Your task to perform on an android device: find snoozed emails in the gmail app Image 0: 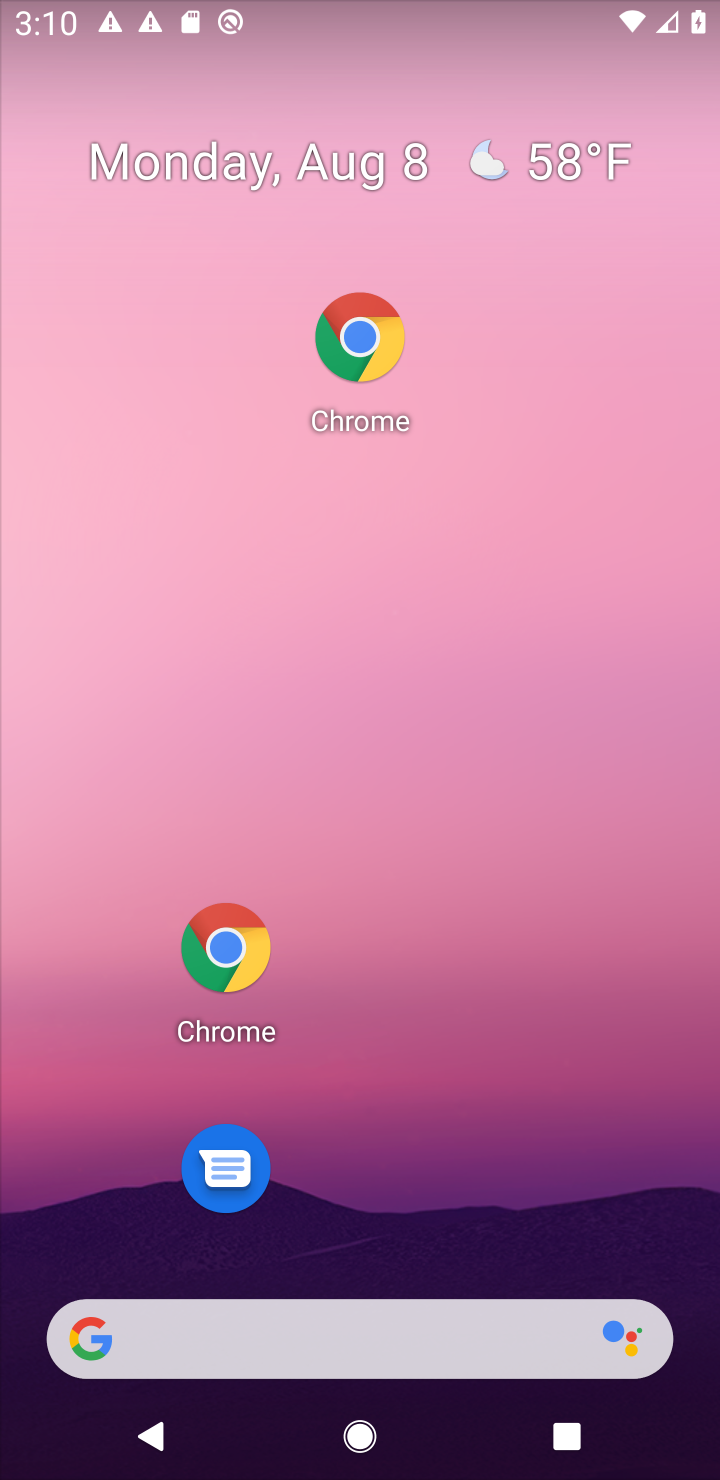
Step 0: drag from (405, 1264) to (486, 9)
Your task to perform on an android device: find snoozed emails in the gmail app Image 1: 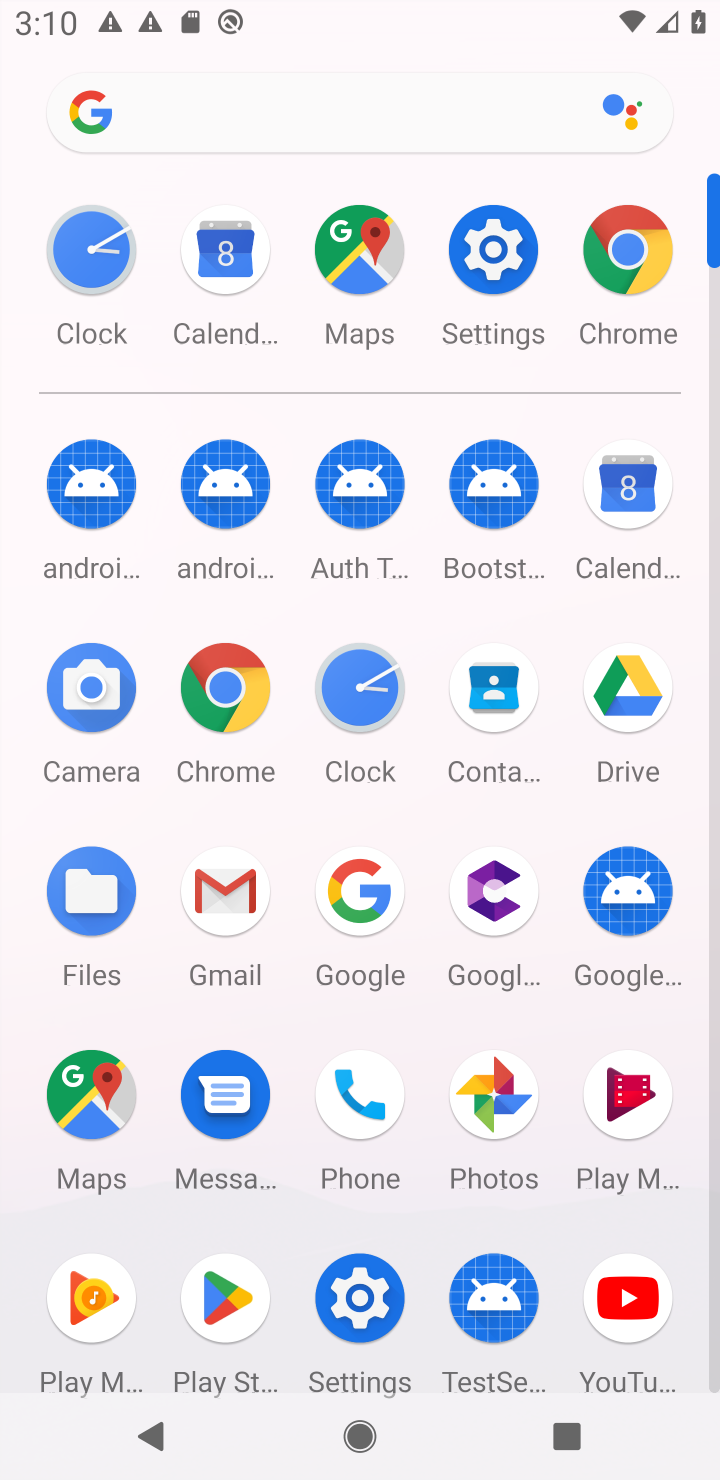
Step 1: click (235, 900)
Your task to perform on an android device: find snoozed emails in the gmail app Image 2: 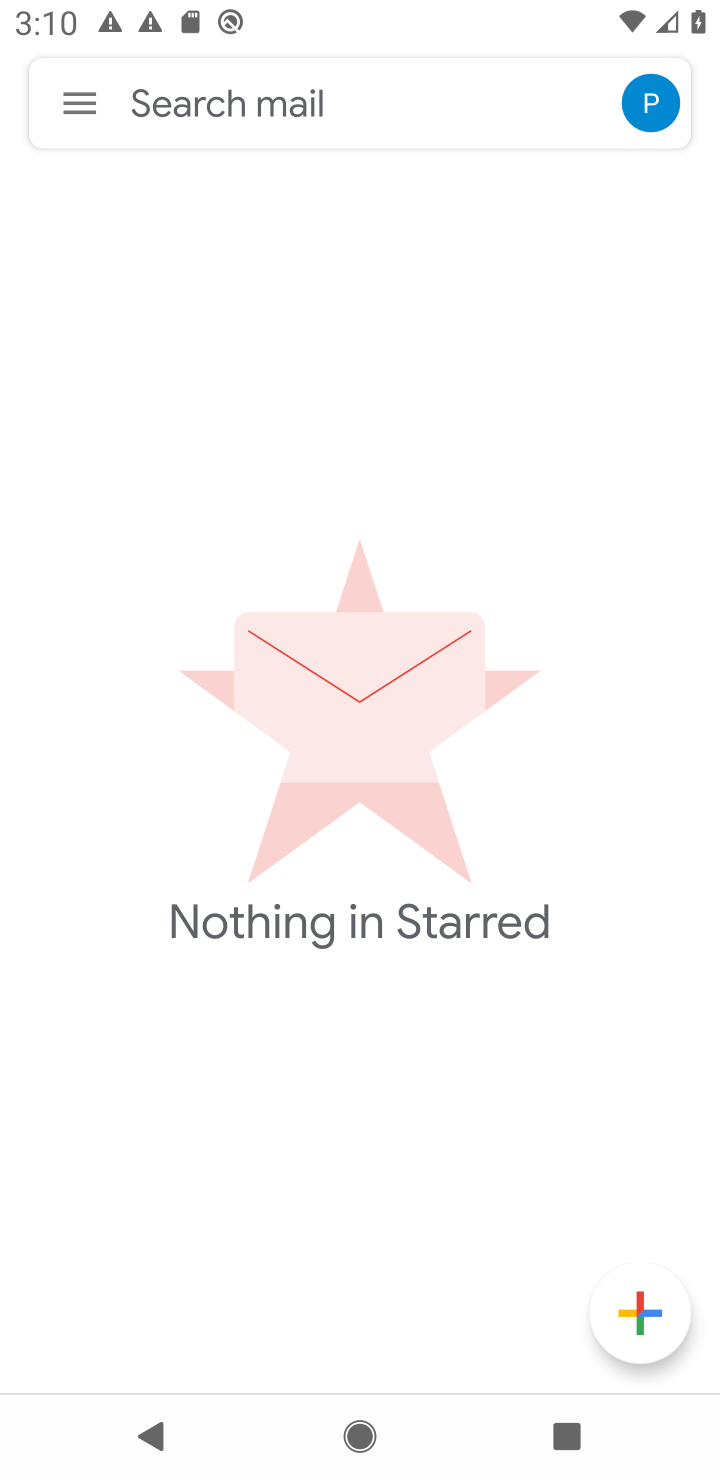
Step 2: click (66, 119)
Your task to perform on an android device: find snoozed emails in the gmail app Image 3: 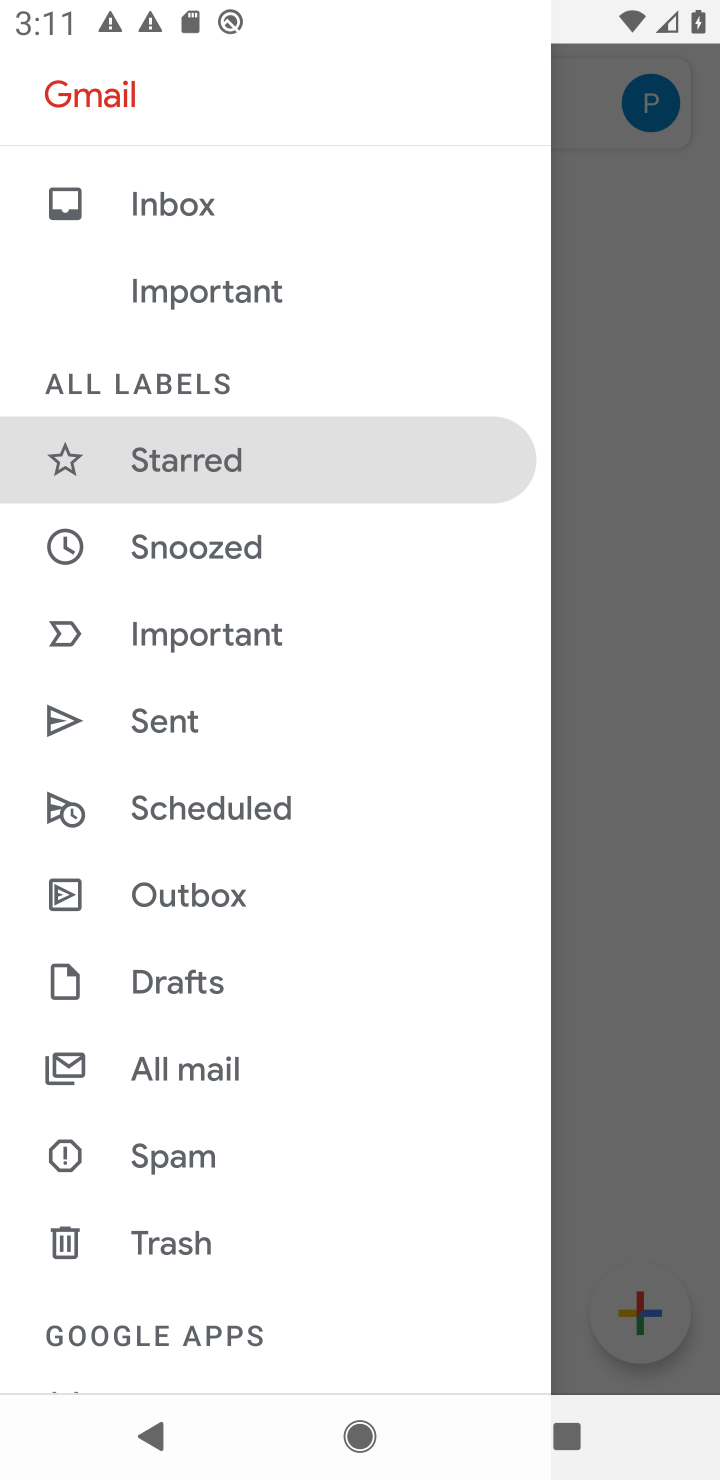
Step 3: click (122, 536)
Your task to perform on an android device: find snoozed emails in the gmail app Image 4: 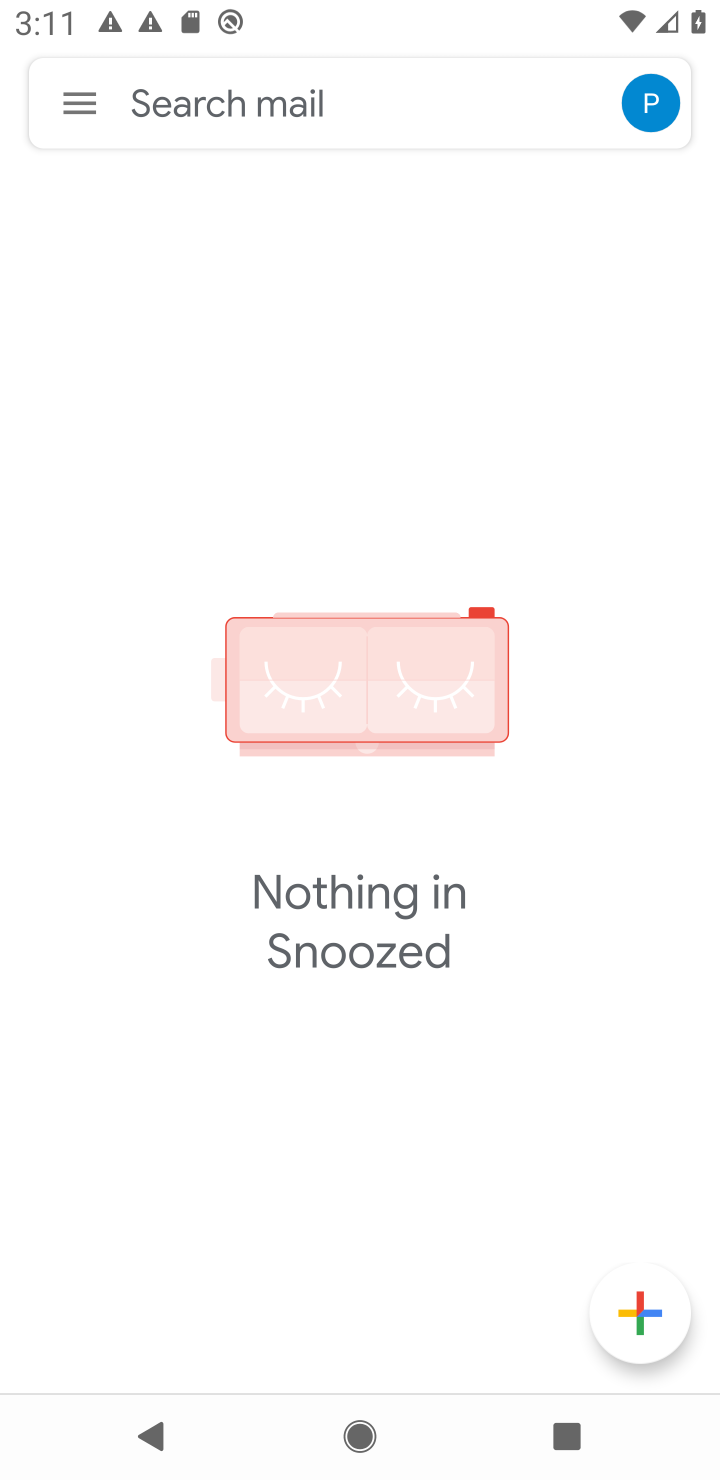
Step 4: task complete